Your task to perform on an android device: change the clock display to show seconds Image 0: 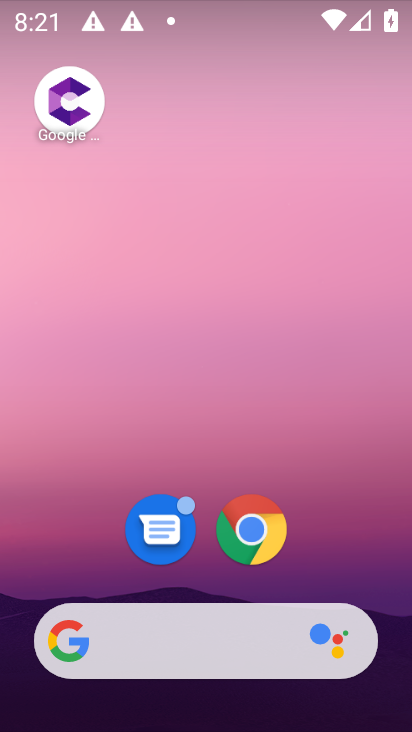
Step 0: drag from (195, 588) to (267, 3)
Your task to perform on an android device: change the clock display to show seconds Image 1: 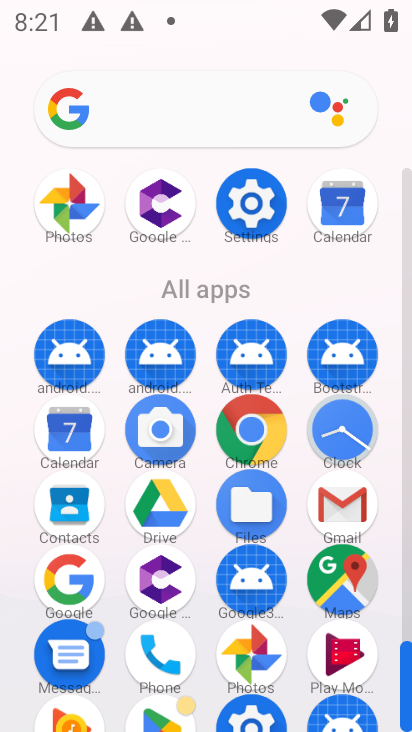
Step 1: click (343, 424)
Your task to perform on an android device: change the clock display to show seconds Image 2: 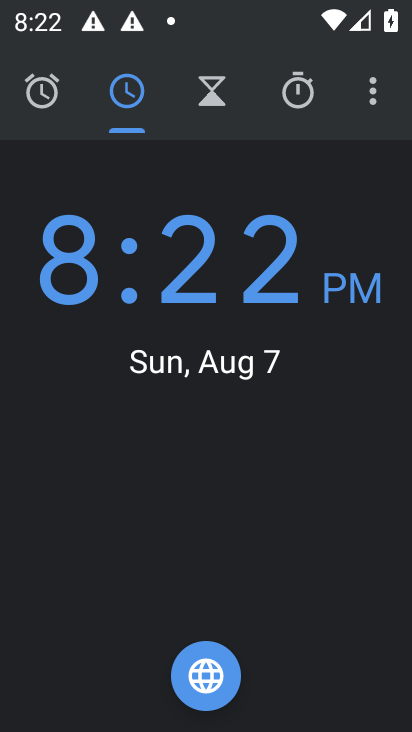
Step 2: click (370, 93)
Your task to perform on an android device: change the clock display to show seconds Image 3: 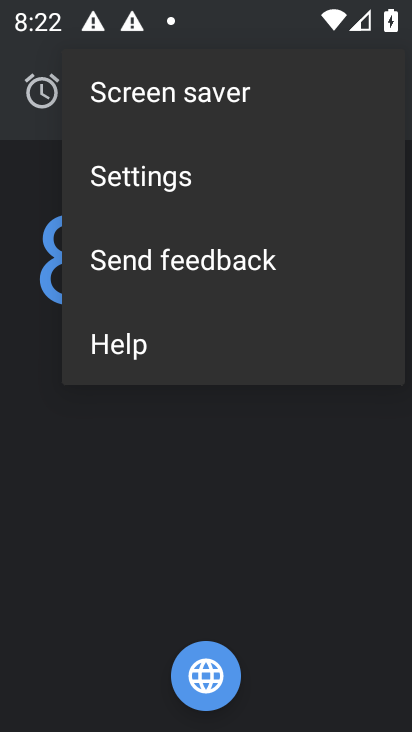
Step 3: click (165, 187)
Your task to perform on an android device: change the clock display to show seconds Image 4: 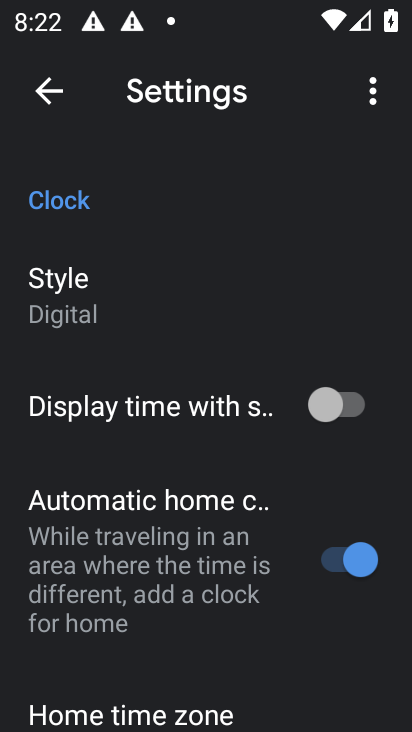
Step 4: click (85, 309)
Your task to perform on an android device: change the clock display to show seconds Image 5: 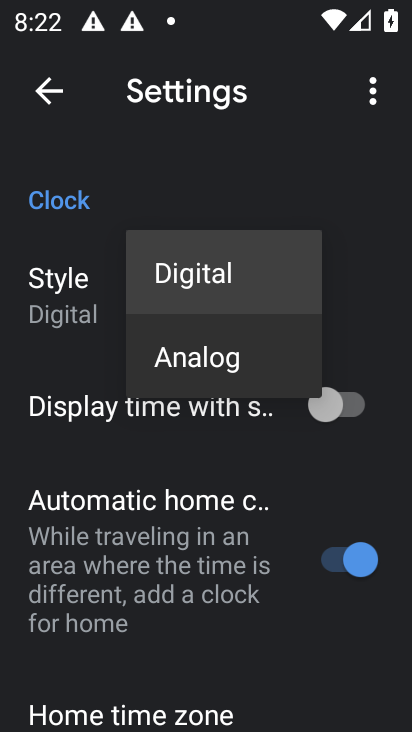
Step 5: click (186, 367)
Your task to perform on an android device: change the clock display to show seconds Image 6: 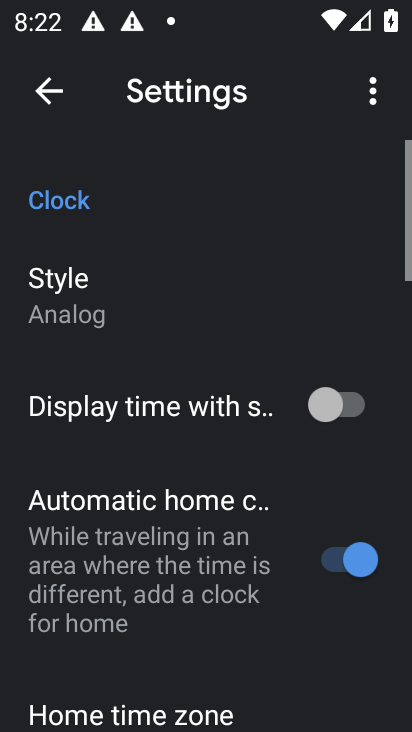
Step 6: click (375, 394)
Your task to perform on an android device: change the clock display to show seconds Image 7: 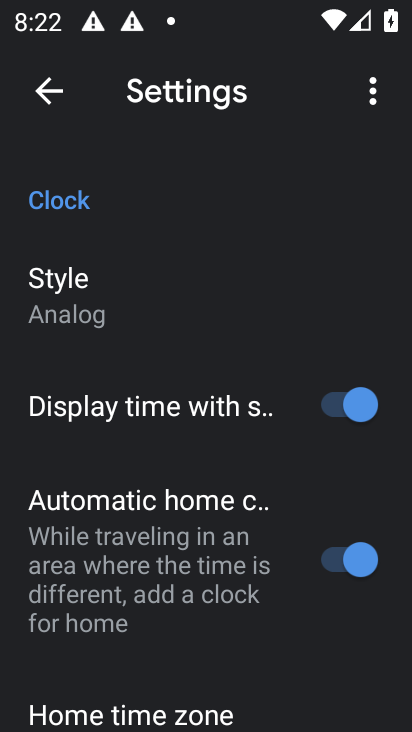
Step 7: task complete